Your task to perform on an android device: Open Google Maps and go to "Timeline" Image 0: 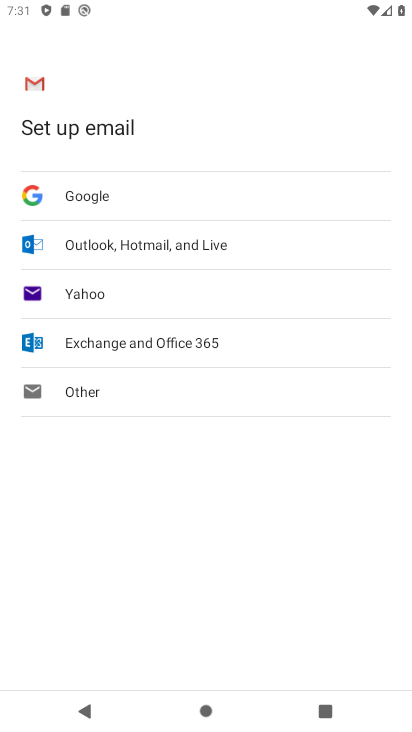
Step 0: press home button
Your task to perform on an android device: Open Google Maps and go to "Timeline" Image 1: 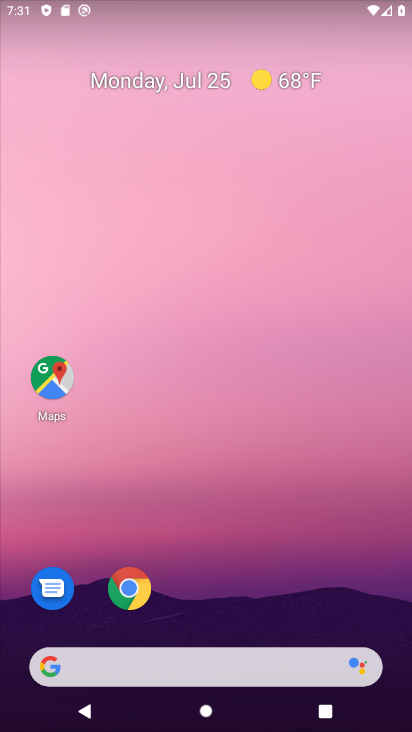
Step 1: drag from (344, 581) to (356, 56)
Your task to perform on an android device: Open Google Maps and go to "Timeline" Image 2: 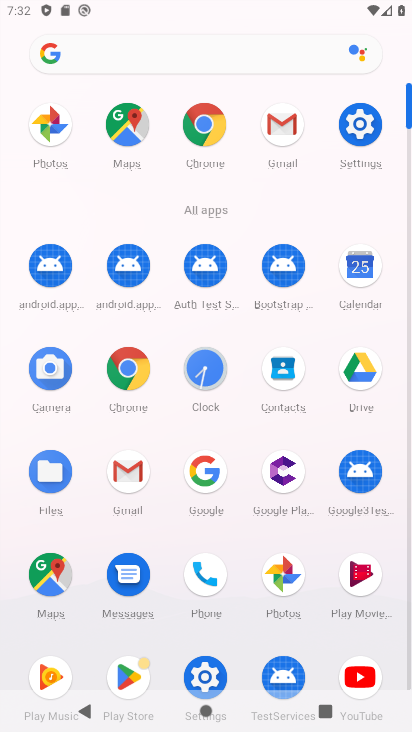
Step 2: click (133, 135)
Your task to perform on an android device: Open Google Maps and go to "Timeline" Image 3: 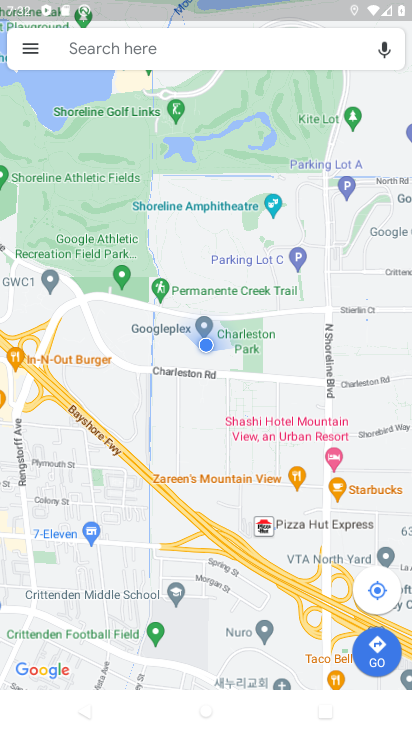
Step 3: click (26, 43)
Your task to perform on an android device: Open Google Maps and go to "Timeline" Image 4: 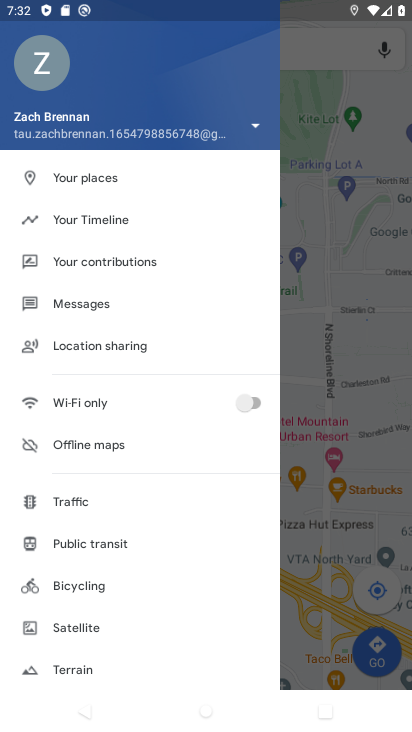
Step 4: drag from (168, 504) to (177, 331)
Your task to perform on an android device: Open Google Maps and go to "Timeline" Image 5: 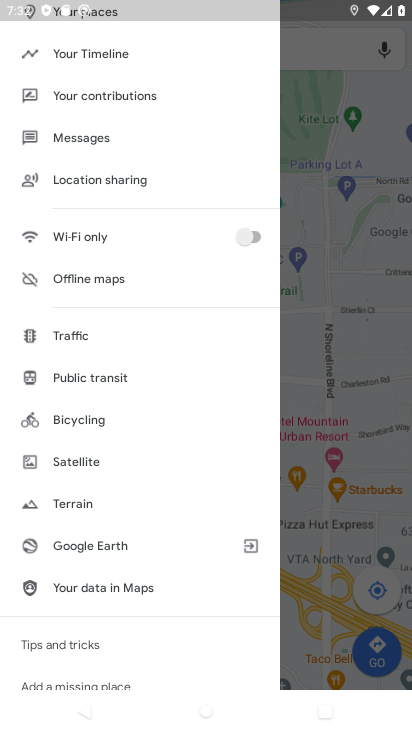
Step 5: drag from (161, 483) to (162, 294)
Your task to perform on an android device: Open Google Maps and go to "Timeline" Image 6: 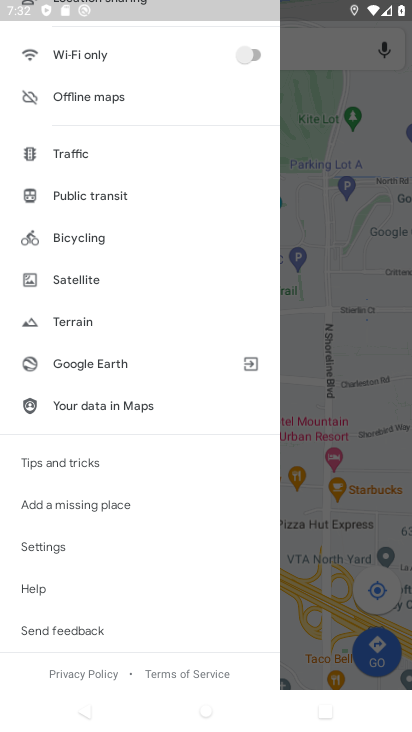
Step 6: drag from (178, 216) to (175, 393)
Your task to perform on an android device: Open Google Maps and go to "Timeline" Image 7: 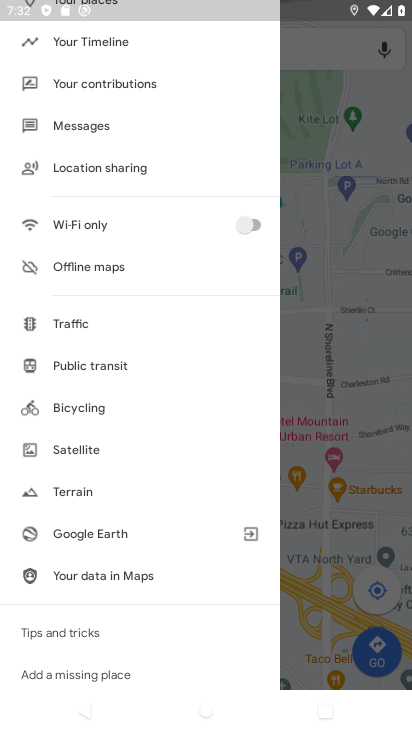
Step 7: drag from (177, 197) to (185, 446)
Your task to perform on an android device: Open Google Maps and go to "Timeline" Image 8: 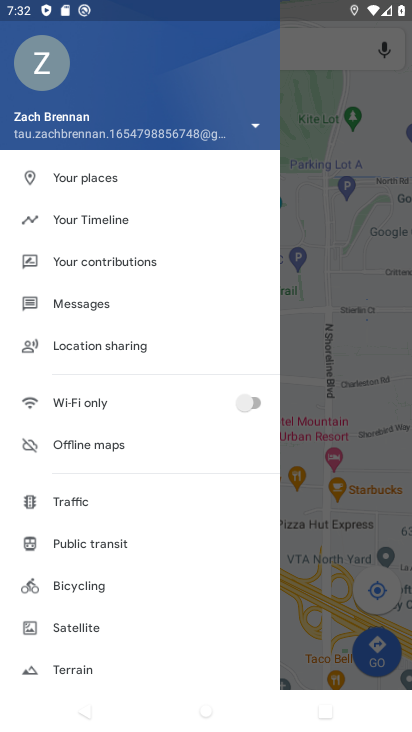
Step 8: click (139, 216)
Your task to perform on an android device: Open Google Maps and go to "Timeline" Image 9: 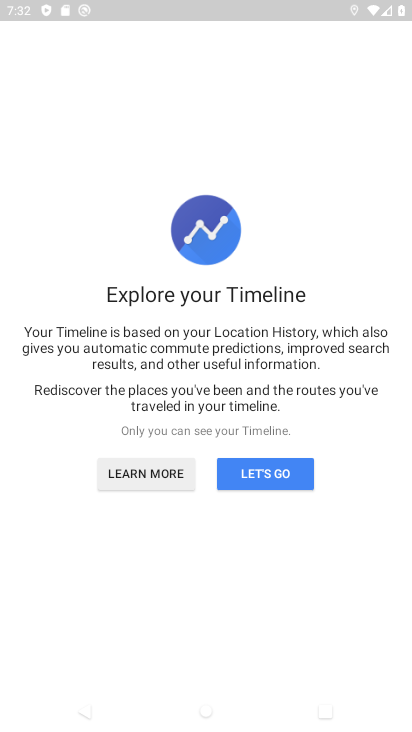
Step 9: task complete